Your task to perform on an android device: check data usage Image 0: 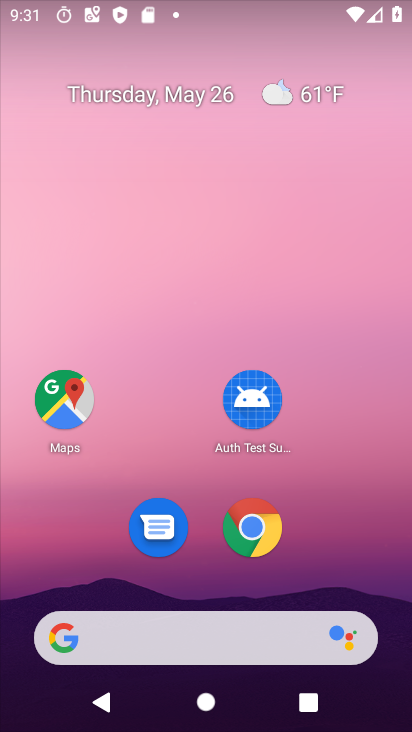
Step 0: drag from (352, 471) to (324, 145)
Your task to perform on an android device: check data usage Image 1: 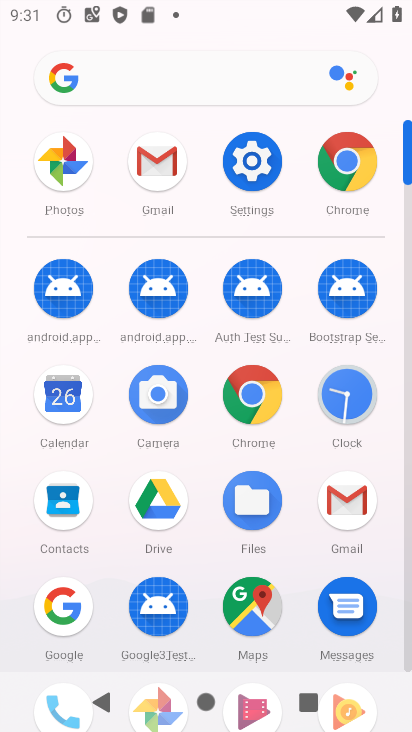
Step 1: click (261, 171)
Your task to perform on an android device: check data usage Image 2: 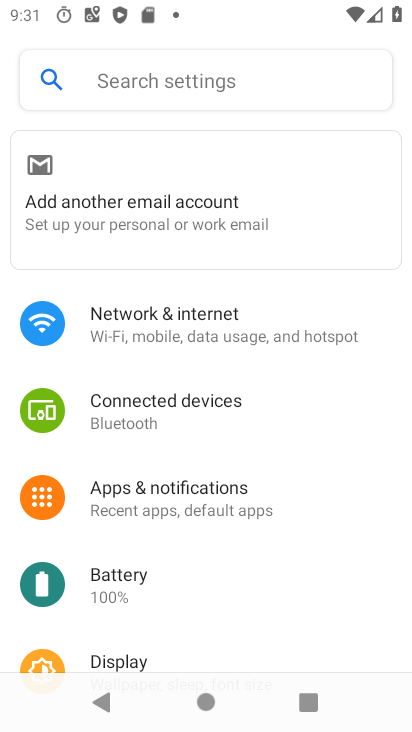
Step 2: click (197, 335)
Your task to perform on an android device: check data usage Image 3: 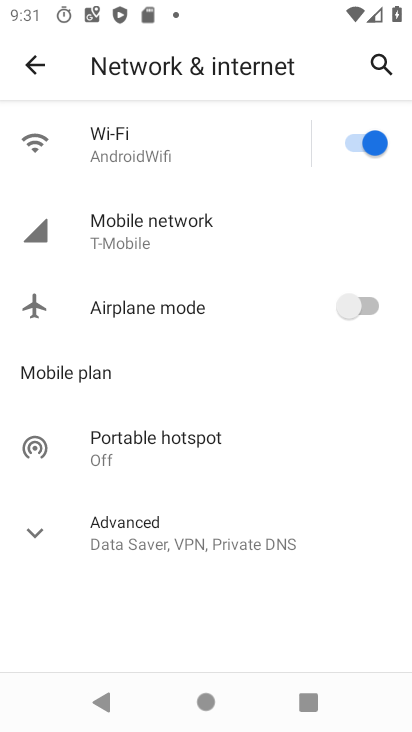
Step 3: click (194, 236)
Your task to perform on an android device: check data usage Image 4: 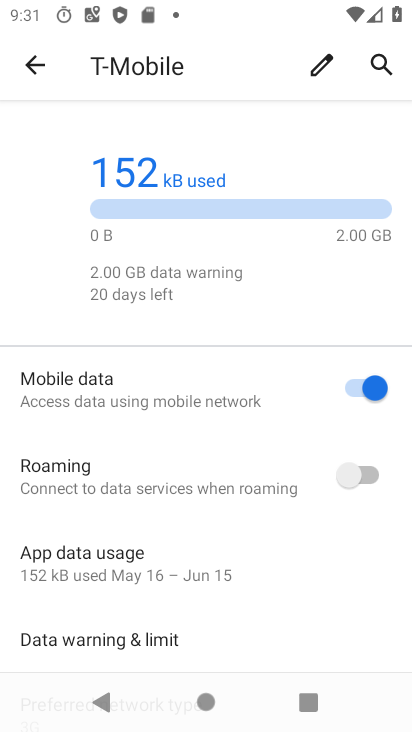
Step 4: task complete